Your task to perform on an android device: uninstall "Pluto TV - Live TV and Movies" Image 0: 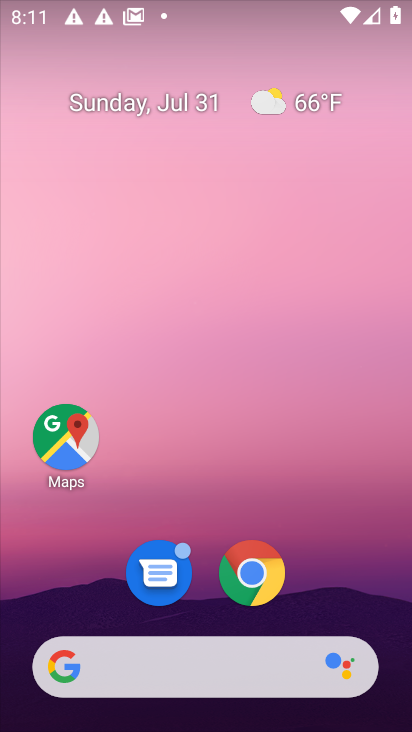
Step 0: drag from (204, 614) to (369, 0)
Your task to perform on an android device: uninstall "Pluto TV - Live TV and Movies" Image 1: 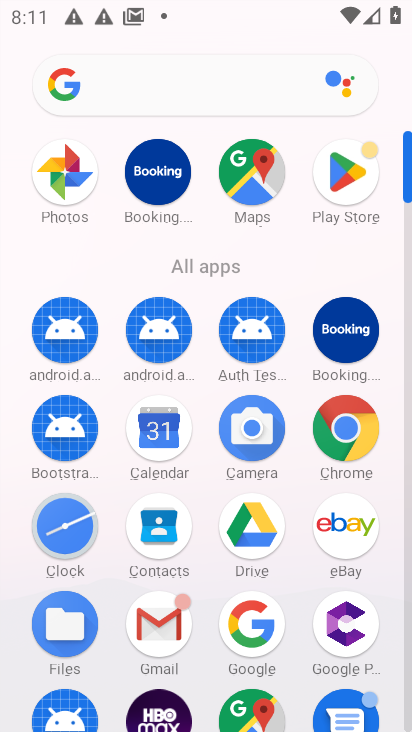
Step 1: click (340, 196)
Your task to perform on an android device: uninstall "Pluto TV - Live TV and Movies" Image 2: 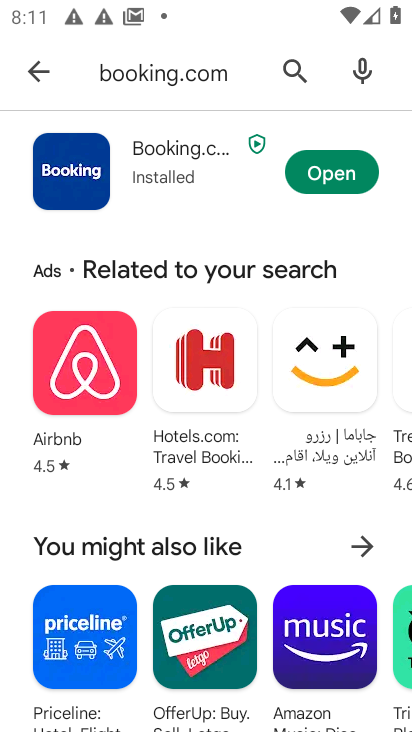
Step 2: click (146, 77)
Your task to perform on an android device: uninstall "Pluto TV - Live TV and Movies" Image 3: 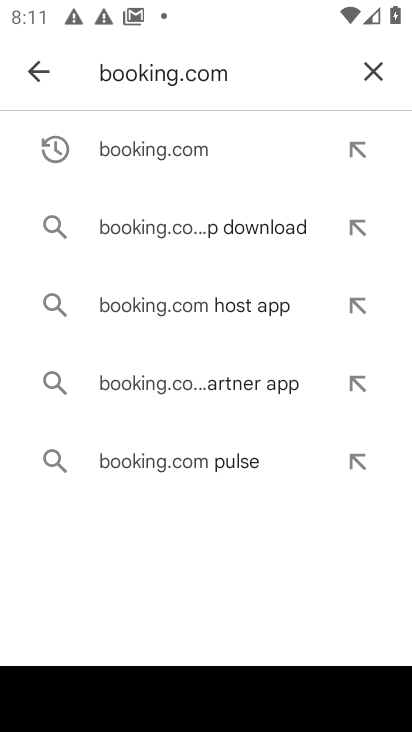
Step 3: click (363, 75)
Your task to perform on an android device: uninstall "Pluto TV - Live TV and Movies" Image 4: 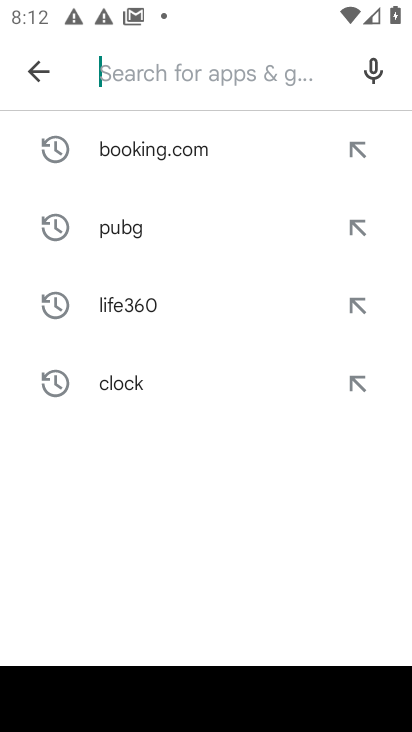
Step 4: type "Pluto "
Your task to perform on an android device: uninstall "Pluto TV - Live TV and Movies" Image 5: 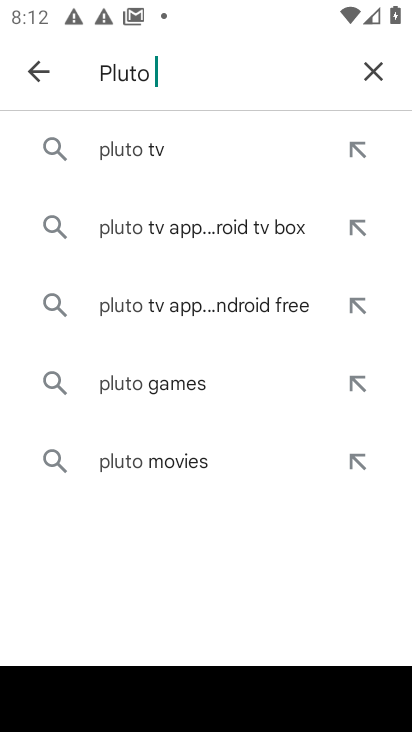
Step 5: click (130, 151)
Your task to perform on an android device: uninstall "Pluto TV - Live TV and Movies" Image 6: 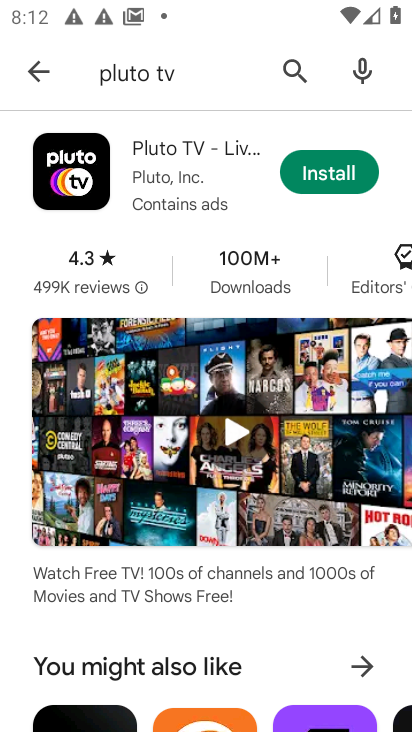
Step 6: click (103, 166)
Your task to perform on an android device: uninstall "Pluto TV - Live TV and Movies" Image 7: 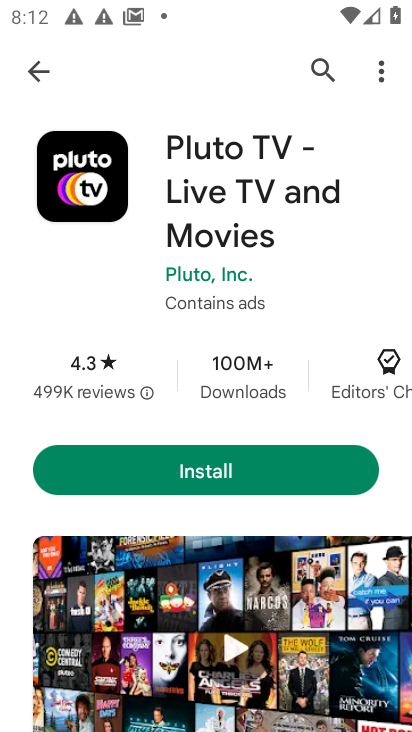
Step 7: task complete